Your task to perform on an android device: Set the phone to "Do not disturb". Image 0: 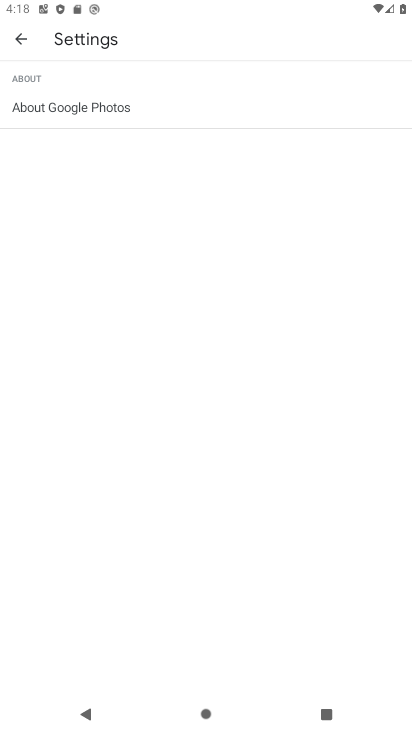
Step 0: press home button
Your task to perform on an android device: Set the phone to "Do not disturb". Image 1: 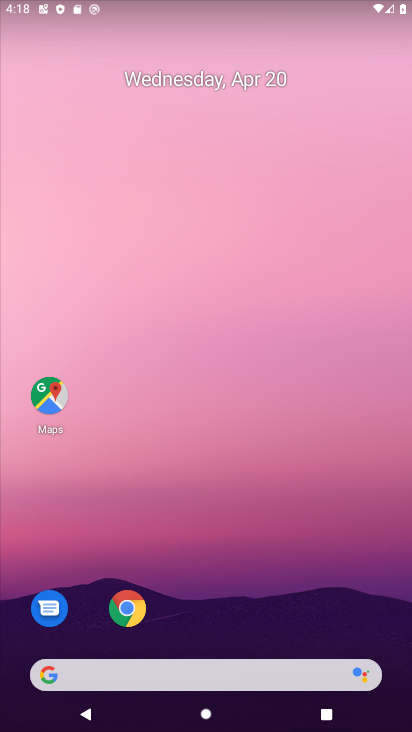
Step 1: drag from (332, 611) to (340, 283)
Your task to perform on an android device: Set the phone to "Do not disturb". Image 2: 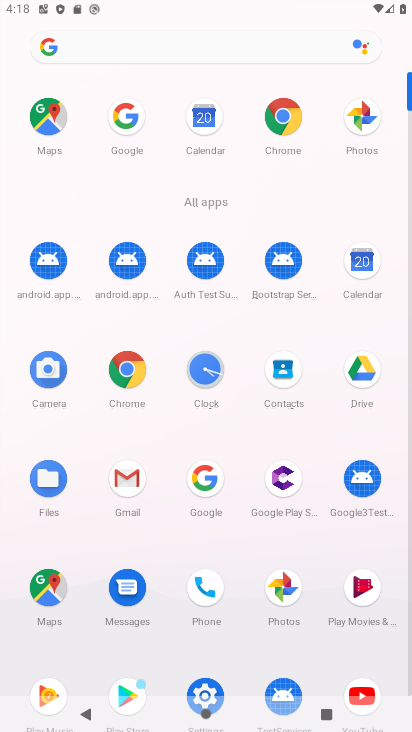
Step 2: click (200, 689)
Your task to perform on an android device: Set the phone to "Do not disturb". Image 3: 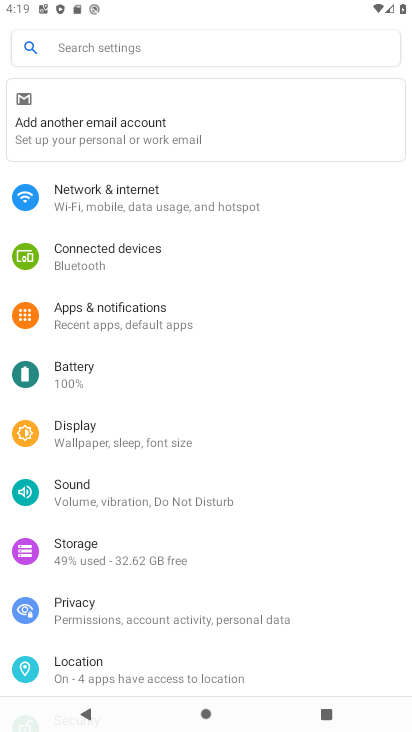
Step 3: click (238, 500)
Your task to perform on an android device: Set the phone to "Do not disturb". Image 4: 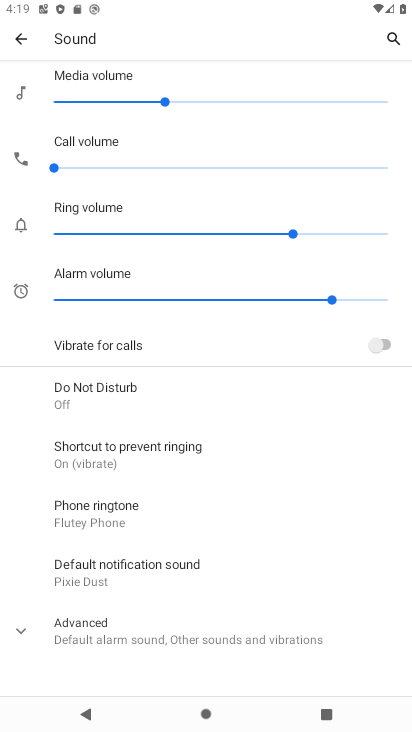
Step 4: click (226, 405)
Your task to perform on an android device: Set the phone to "Do not disturb". Image 5: 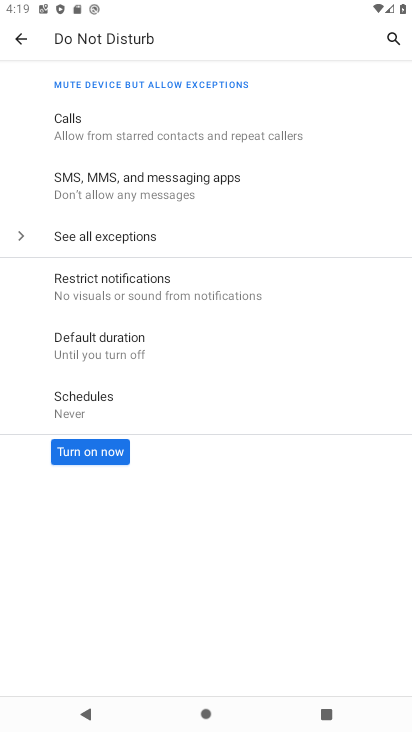
Step 5: click (105, 457)
Your task to perform on an android device: Set the phone to "Do not disturb". Image 6: 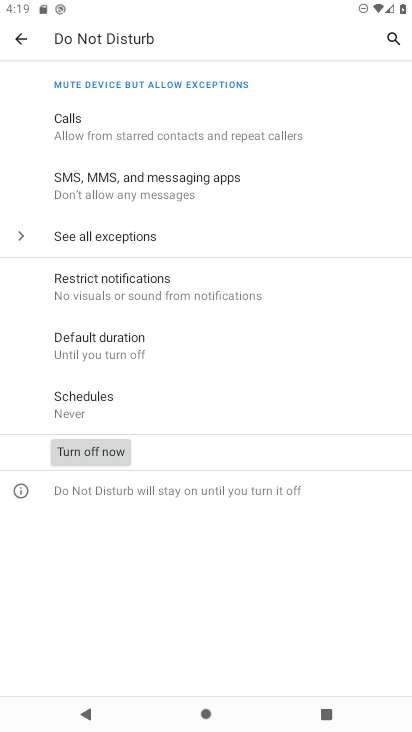
Step 6: task complete